Your task to perform on an android device: refresh tabs in the chrome app Image 0: 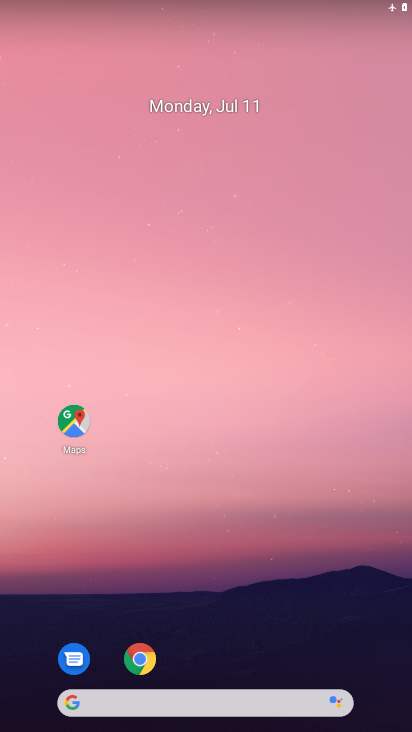
Step 0: click (143, 656)
Your task to perform on an android device: refresh tabs in the chrome app Image 1: 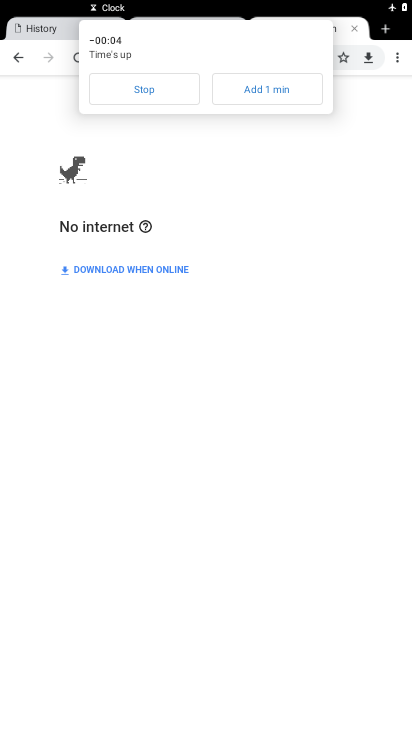
Step 1: click (161, 87)
Your task to perform on an android device: refresh tabs in the chrome app Image 2: 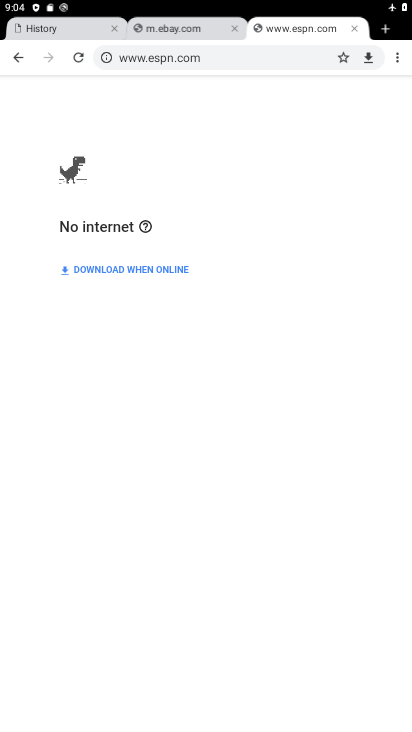
Step 2: click (392, 58)
Your task to perform on an android device: refresh tabs in the chrome app Image 3: 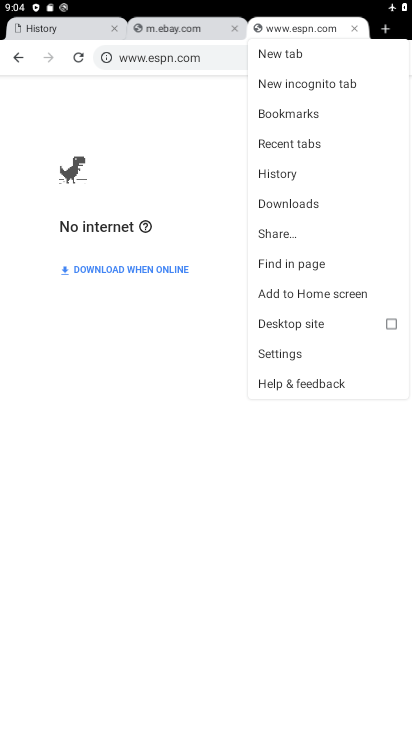
Step 3: click (196, 164)
Your task to perform on an android device: refresh tabs in the chrome app Image 4: 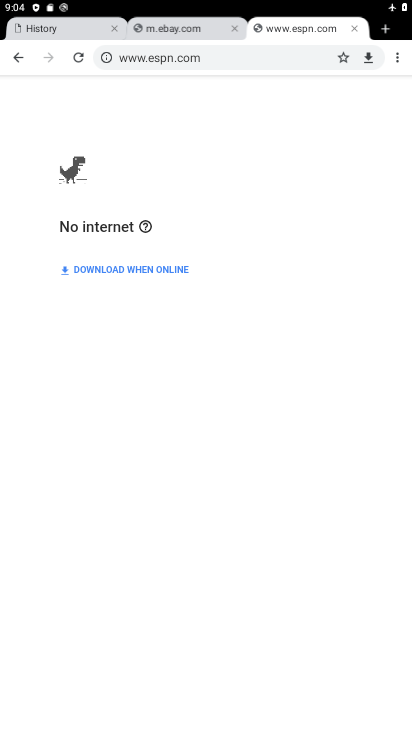
Step 4: click (79, 54)
Your task to perform on an android device: refresh tabs in the chrome app Image 5: 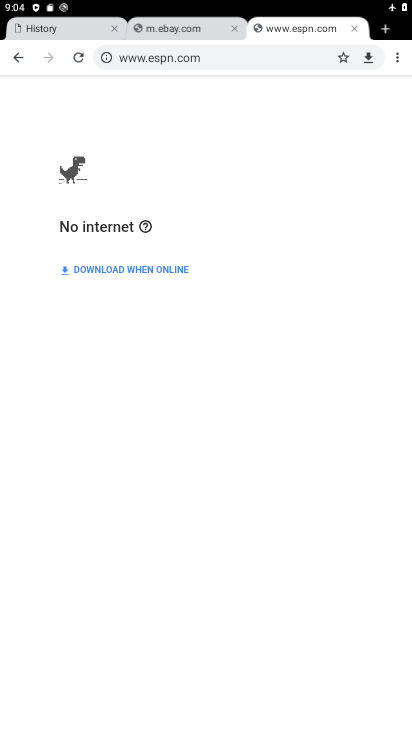
Step 5: task complete